Your task to perform on an android device: turn on priority inbox in the gmail app Image 0: 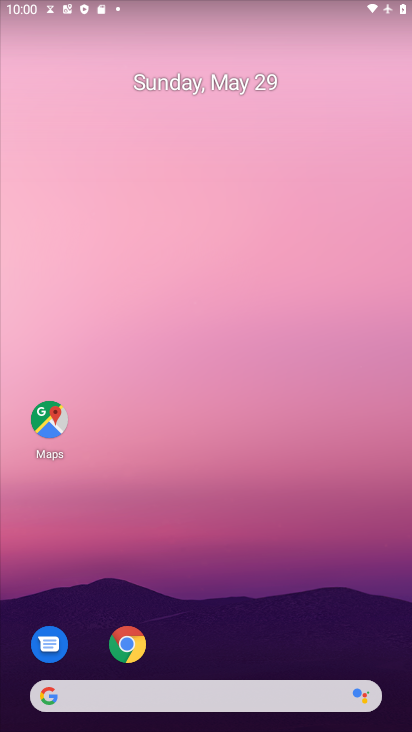
Step 0: drag from (283, 500) to (305, 219)
Your task to perform on an android device: turn on priority inbox in the gmail app Image 1: 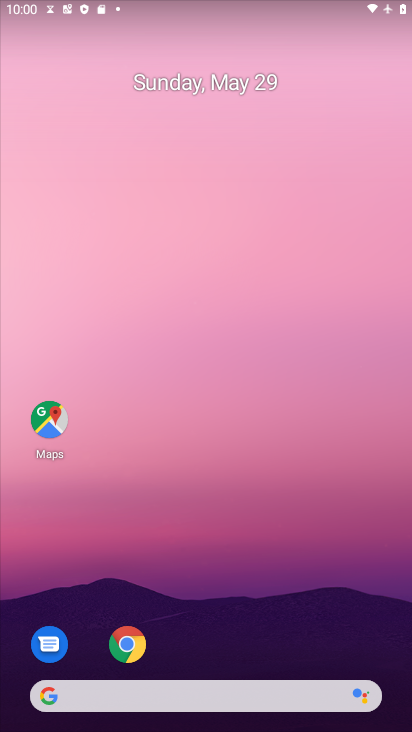
Step 1: drag from (242, 626) to (256, 187)
Your task to perform on an android device: turn on priority inbox in the gmail app Image 2: 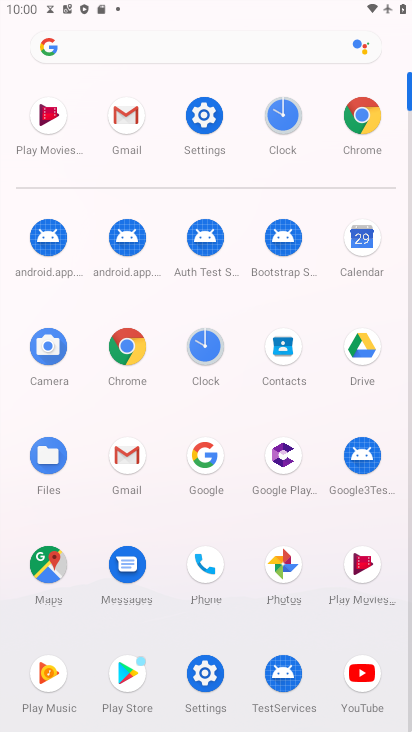
Step 2: click (121, 456)
Your task to perform on an android device: turn on priority inbox in the gmail app Image 3: 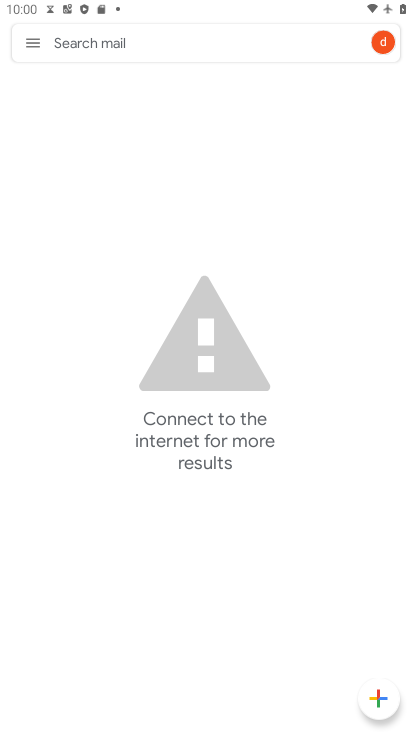
Step 3: click (35, 43)
Your task to perform on an android device: turn on priority inbox in the gmail app Image 4: 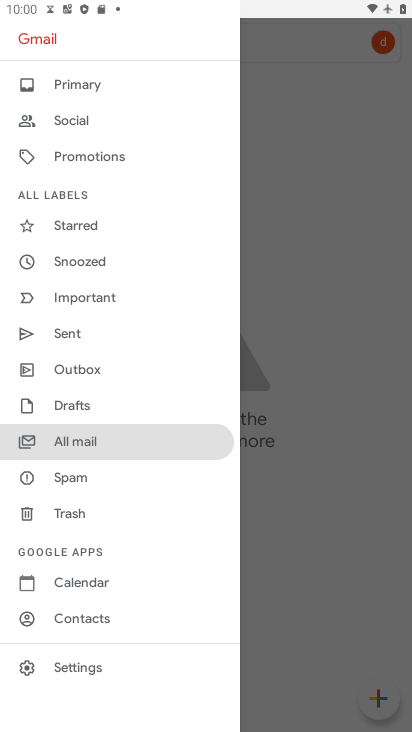
Step 4: click (95, 660)
Your task to perform on an android device: turn on priority inbox in the gmail app Image 5: 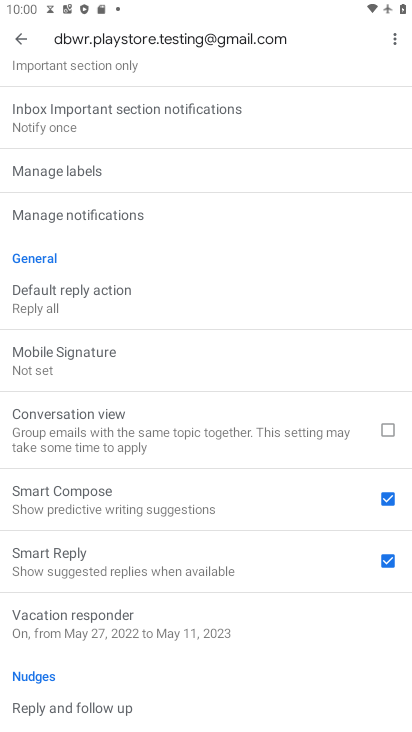
Step 5: drag from (137, 559) to (170, 310)
Your task to perform on an android device: turn on priority inbox in the gmail app Image 6: 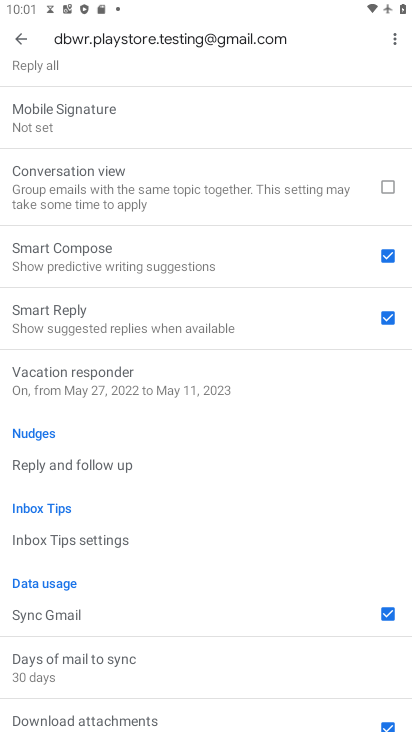
Step 6: drag from (175, 176) to (187, 608)
Your task to perform on an android device: turn on priority inbox in the gmail app Image 7: 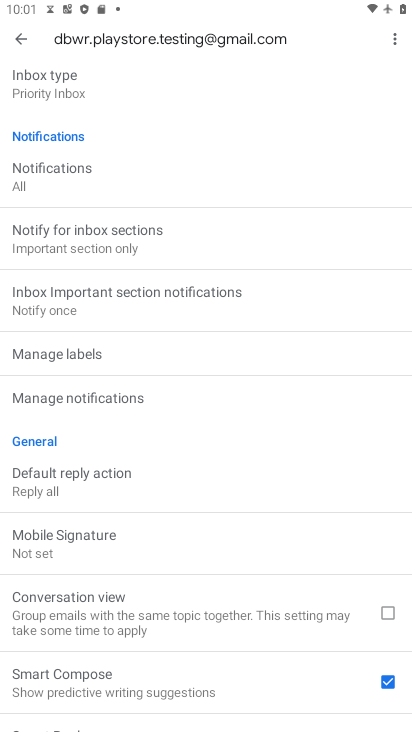
Step 7: drag from (102, 203) to (150, 460)
Your task to perform on an android device: turn on priority inbox in the gmail app Image 8: 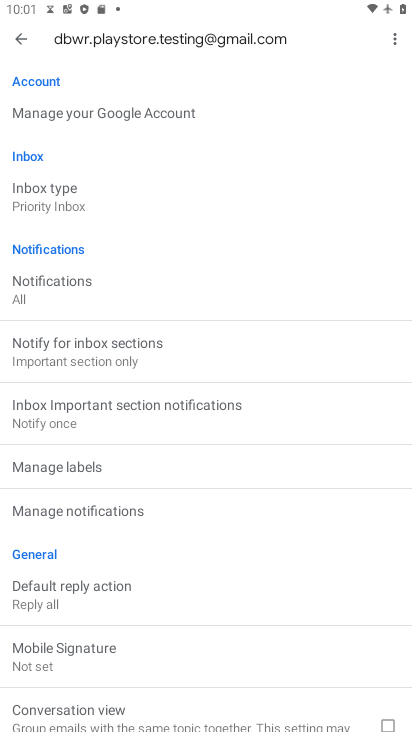
Step 8: click (76, 175)
Your task to perform on an android device: turn on priority inbox in the gmail app Image 9: 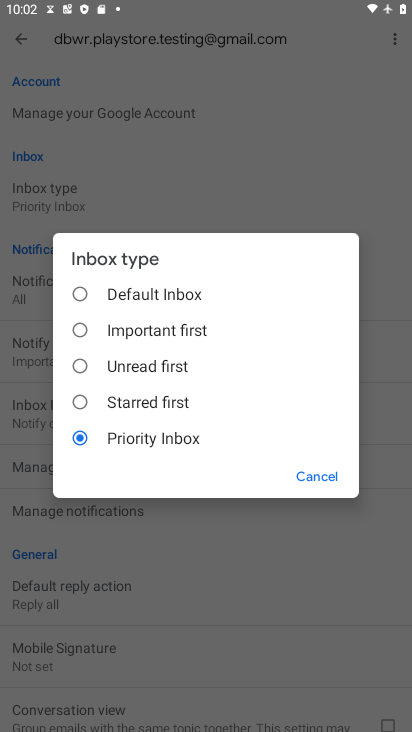
Step 9: task complete